Your task to perform on an android device: turn on priority inbox in the gmail app Image 0: 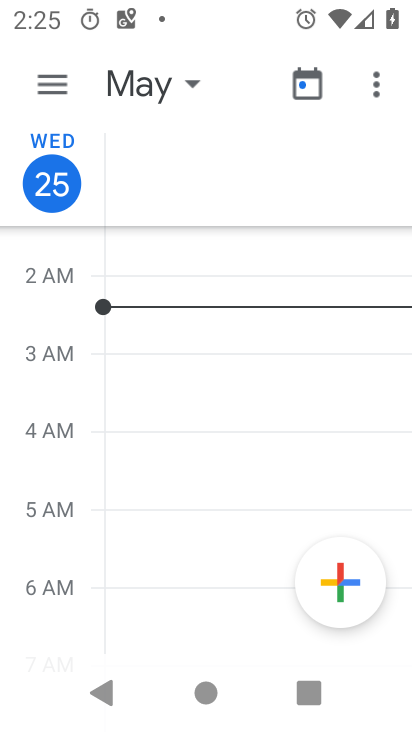
Step 0: press home button
Your task to perform on an android device: turn on priority inbox in the gmail app Image 1: 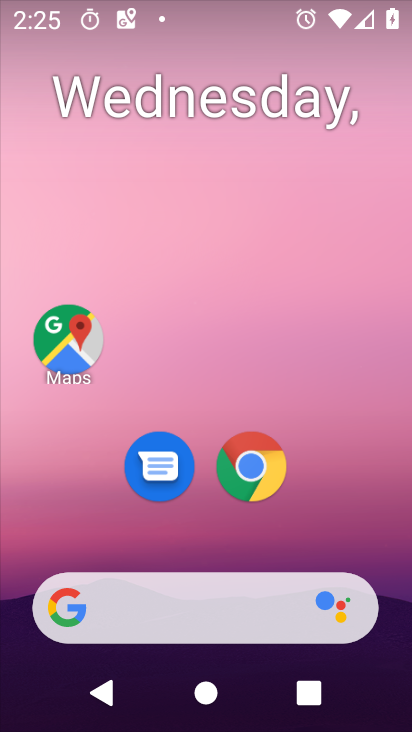
Step 1: drag from (305, 405) to (246, 0)
Your task to perform on an android device: turn on priority inbox in the gmail app Image 2: 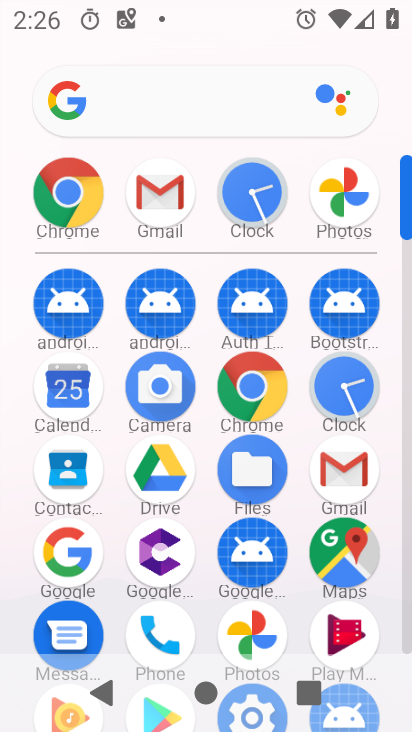
Step 2: click (135, 203)
Your task to perform on an android device: turn on priority inbox in the gmail app Image 3: 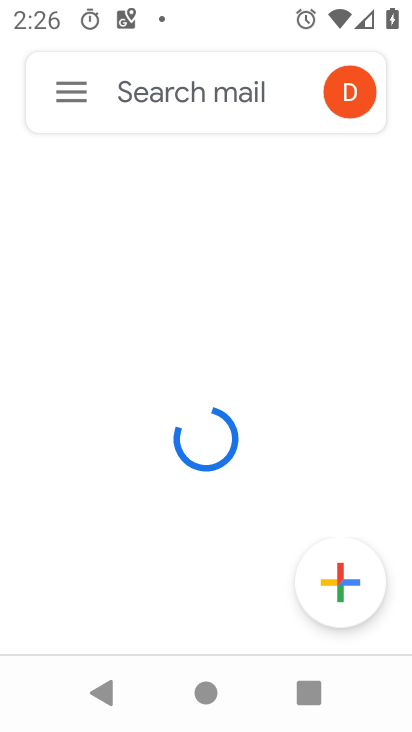
Step 3: click (63, 110)
Your task to perform on an android device: turn on priority inbox in the gmail app Image 4: 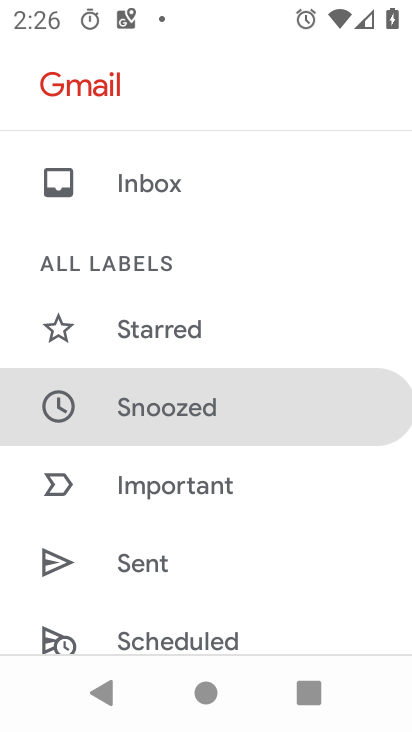
Step 4: click (145, 186)
Your task to perform on an android device: turn on priority inbox in the gmail app Image 5: 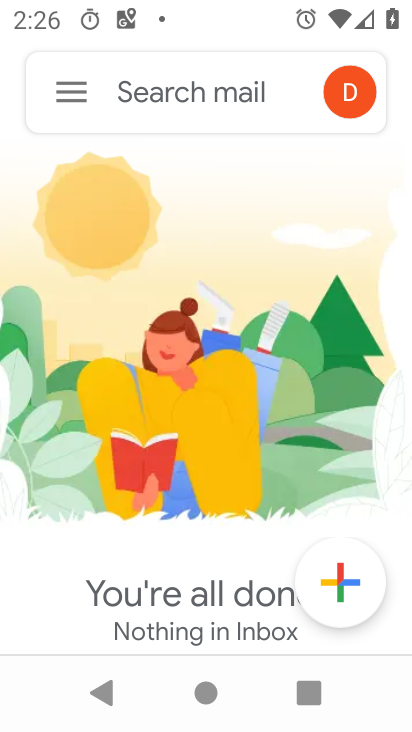
Step 5: task complete